Your task to perform on an android device: Look up the top rated headphones on Amazon. Image 0: 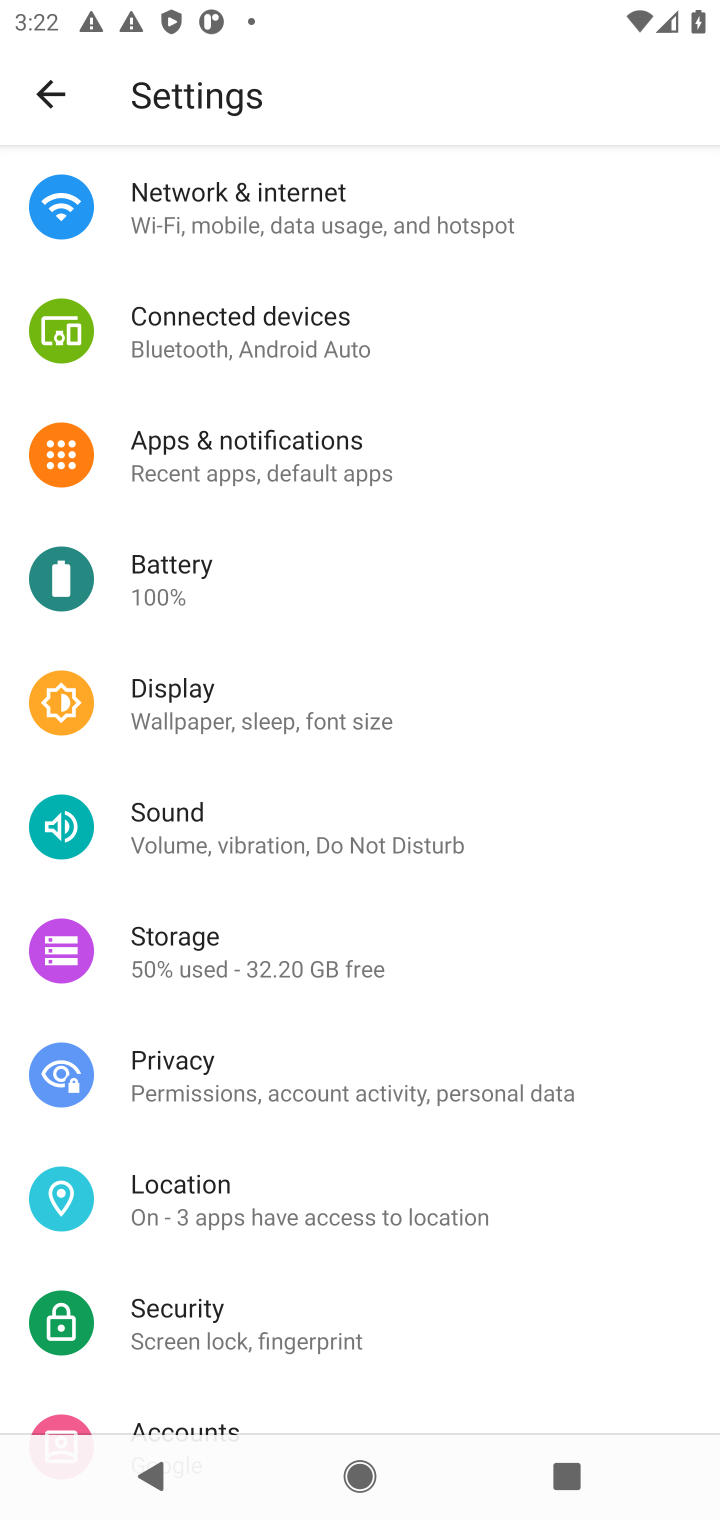
Step 0: press home button
Your task to perform on an android device: Look up the top rated headphones on Amazon. Image 1: 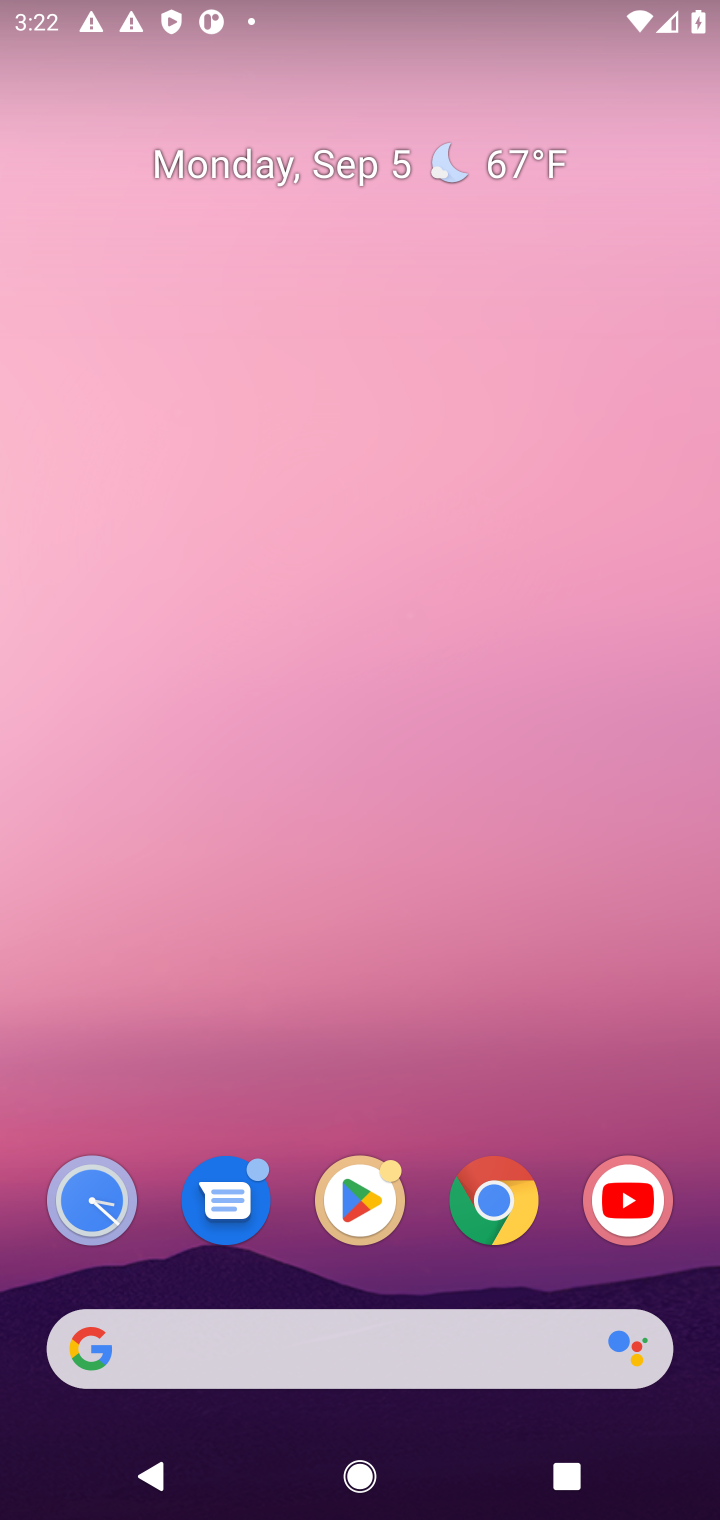
Step 1: drag from (429, 1265) to (176, 10)
Your task to perform on an android device: Look up the top rated headphones on Amazon. Image 2: 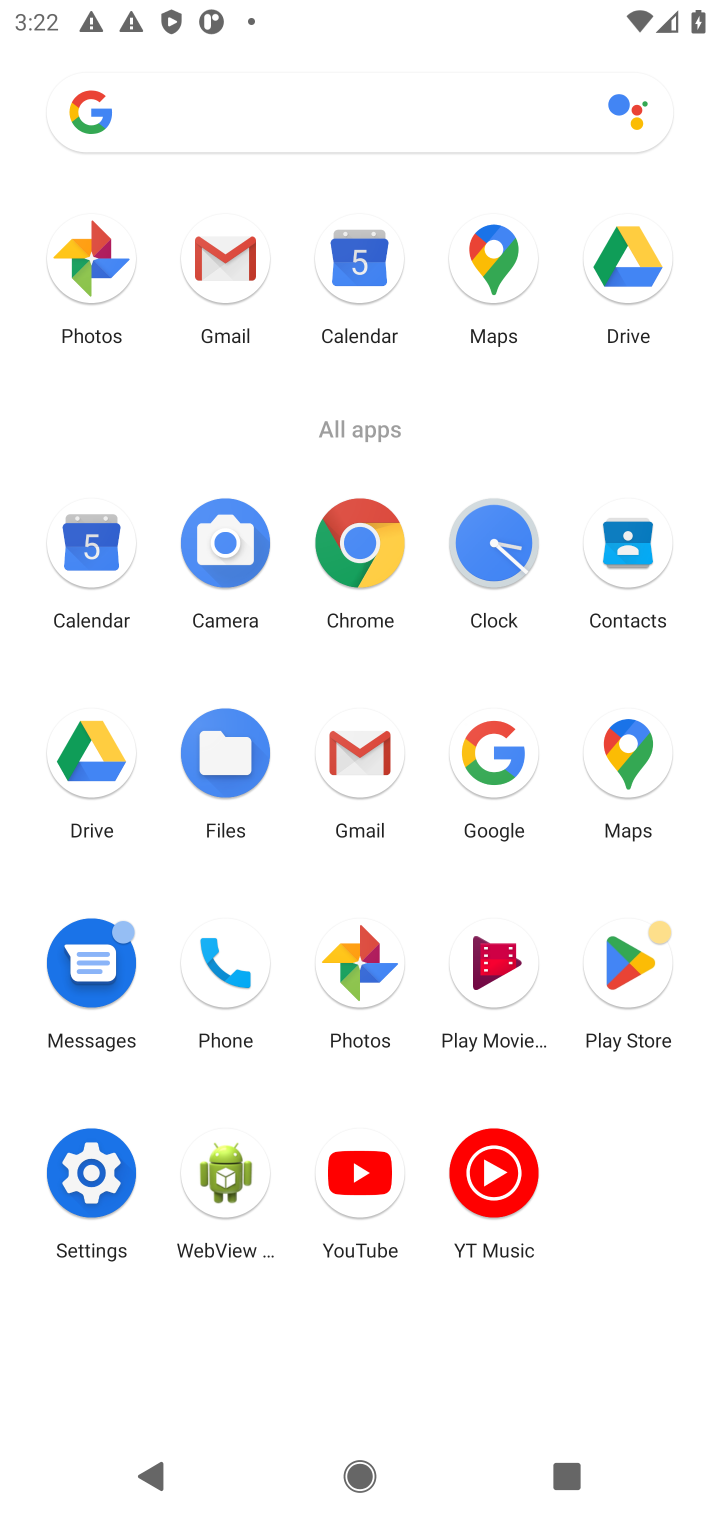
Step 2: click (486, 765)
Your task to perform on an android device: Look up the top rated headphones on Amazon. Image 3: 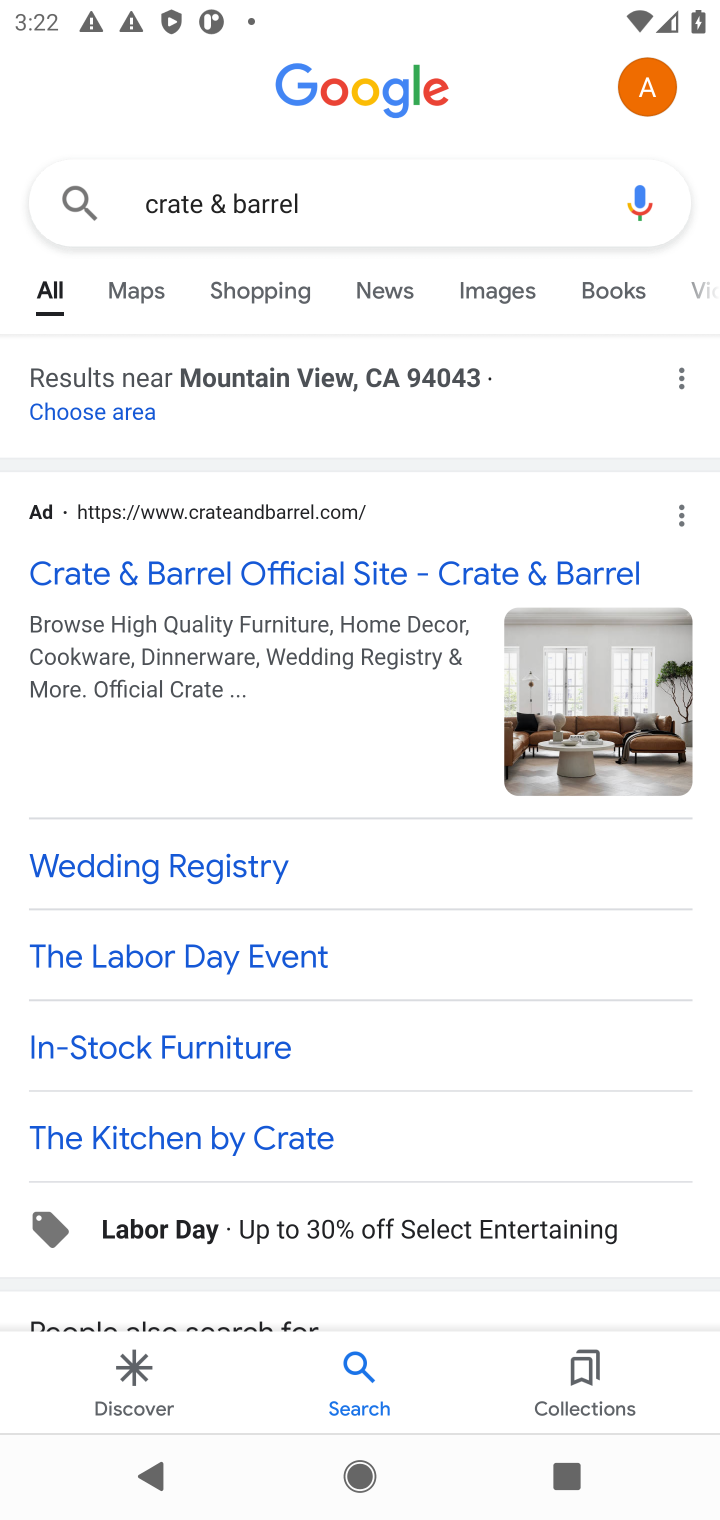
Step 3: click (317, 193)
Your task to perform on an android device: Look up the top rated headphones on Amazon. Image 4: 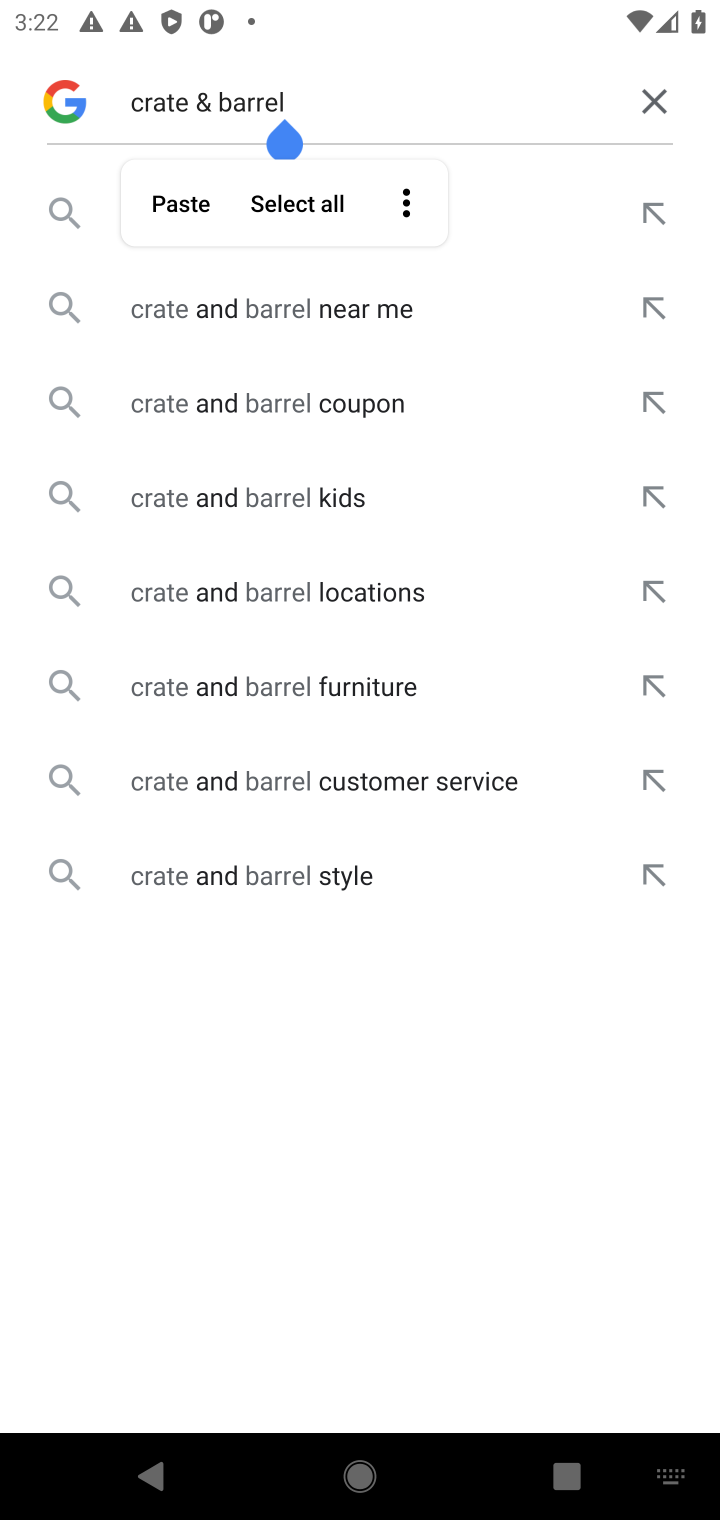
Step 4: click (648, 105)
Your task to perform on an android device: Look up the top rated headphones on Amazon. Image 5: 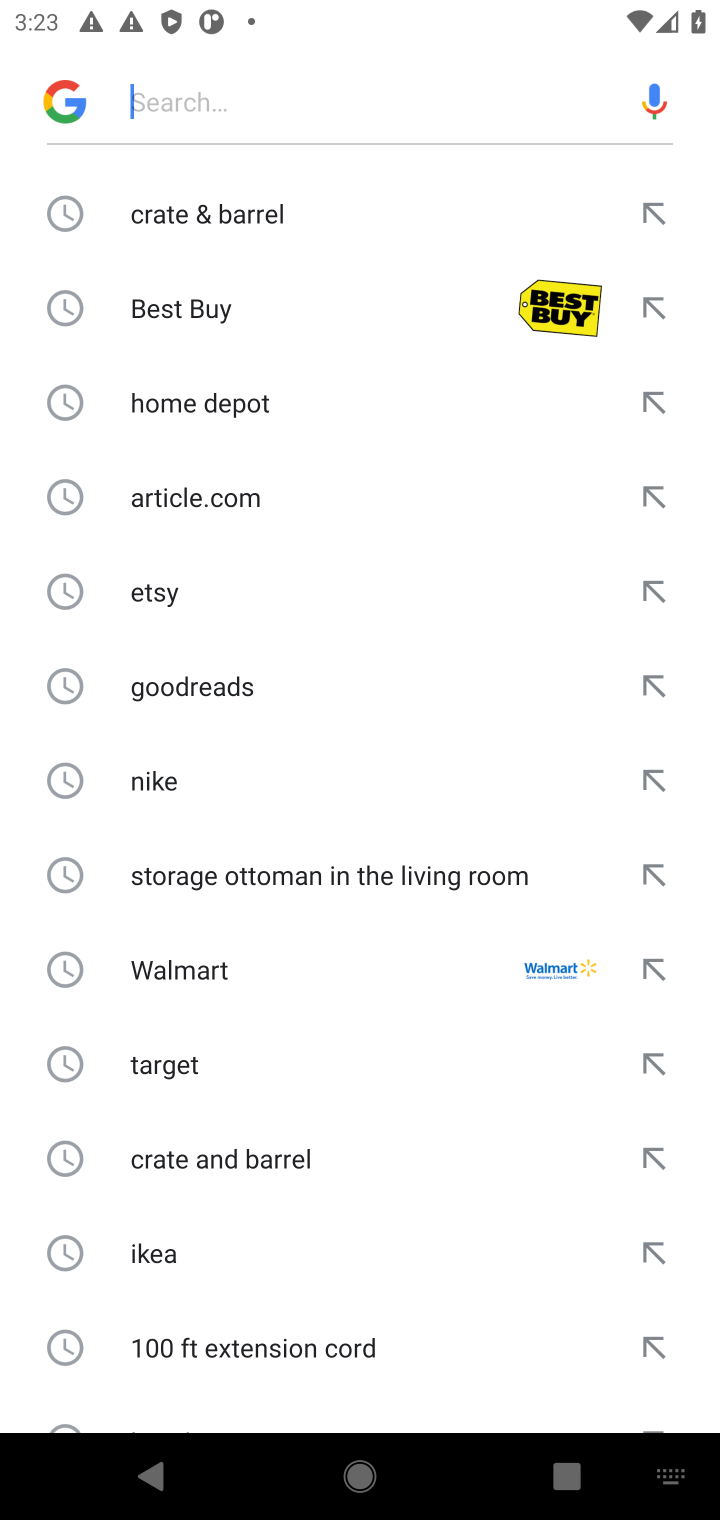
Step 5: type "amazon"
Your task to perform on an android device: Look up the top rated headphones on Amazon. Image 6: 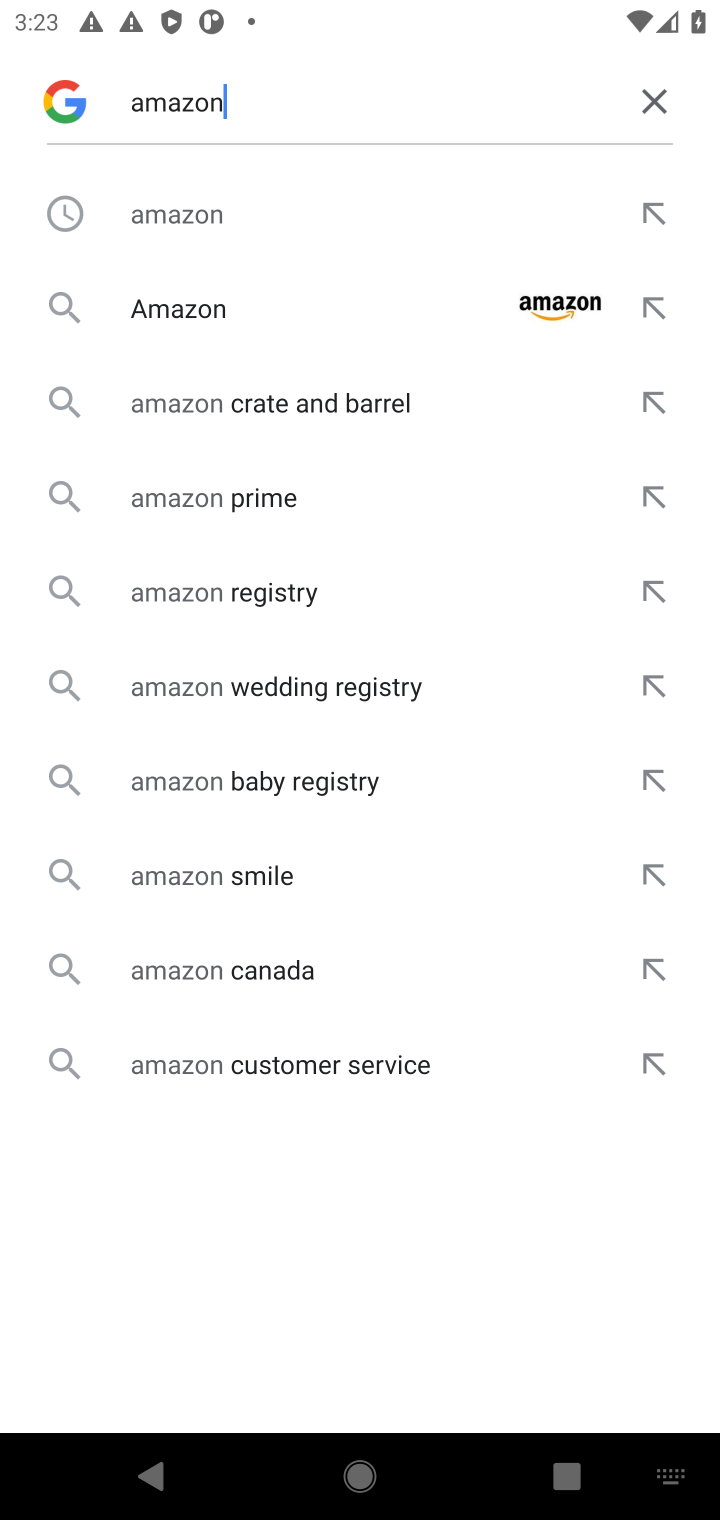
Step 6: click (161, 308)
Your task to perform on an android device: Look up the top rated headphones on Amazon. Image 7: 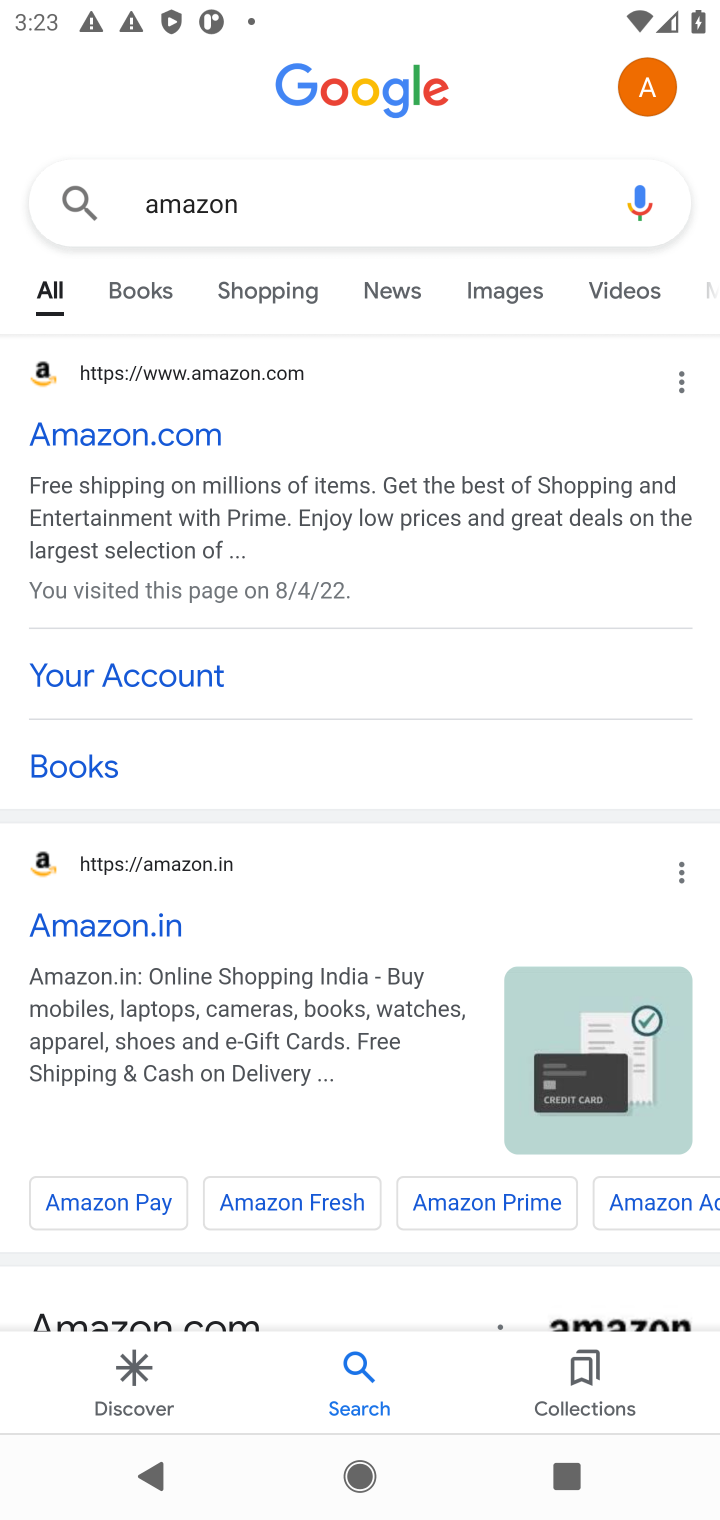
Step 7: click (106, 428)
Your task to perform on an android device: Look up the top rated headphones on Amazon. Image 8: 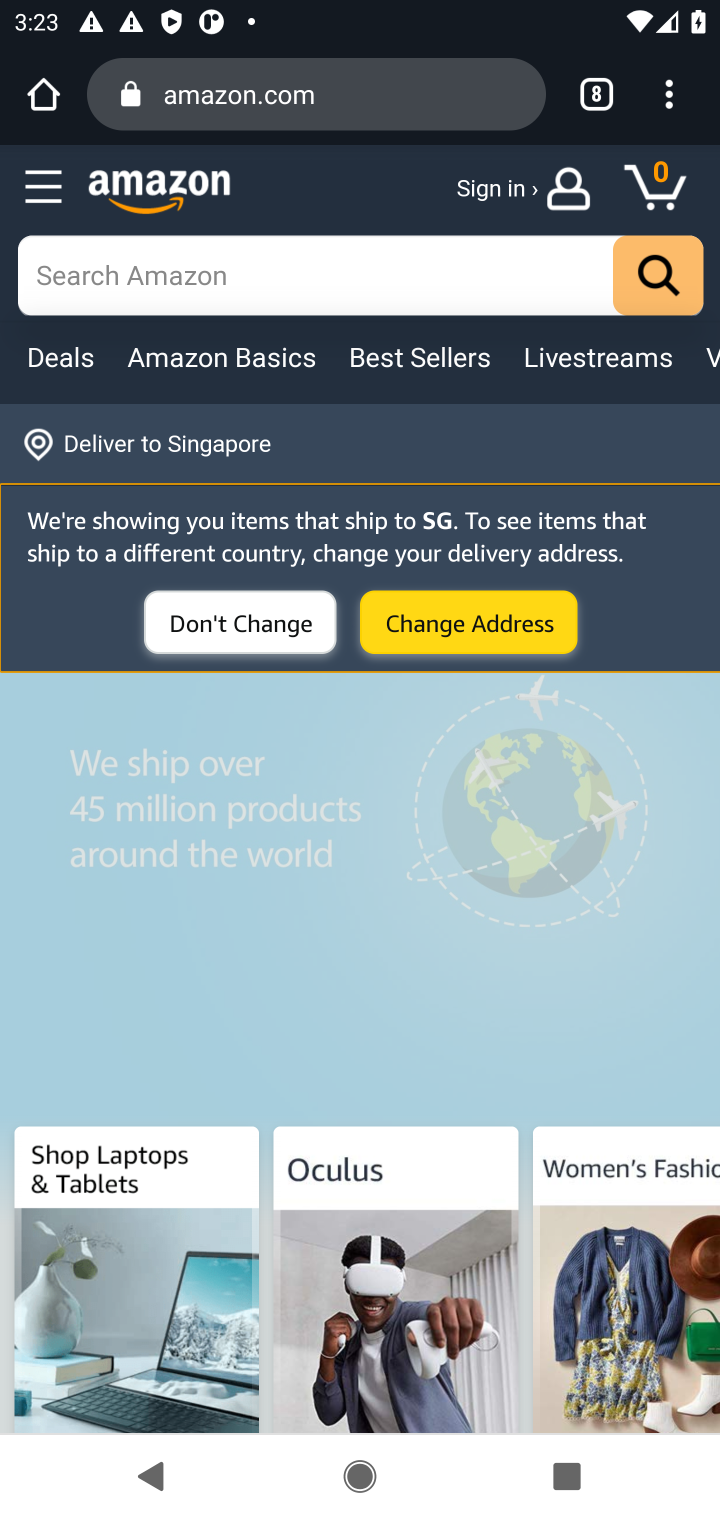
Step 8: click (301, 272)
Your task to perform on an android device: Look up the top rated headphones on Amazon. Image 9: 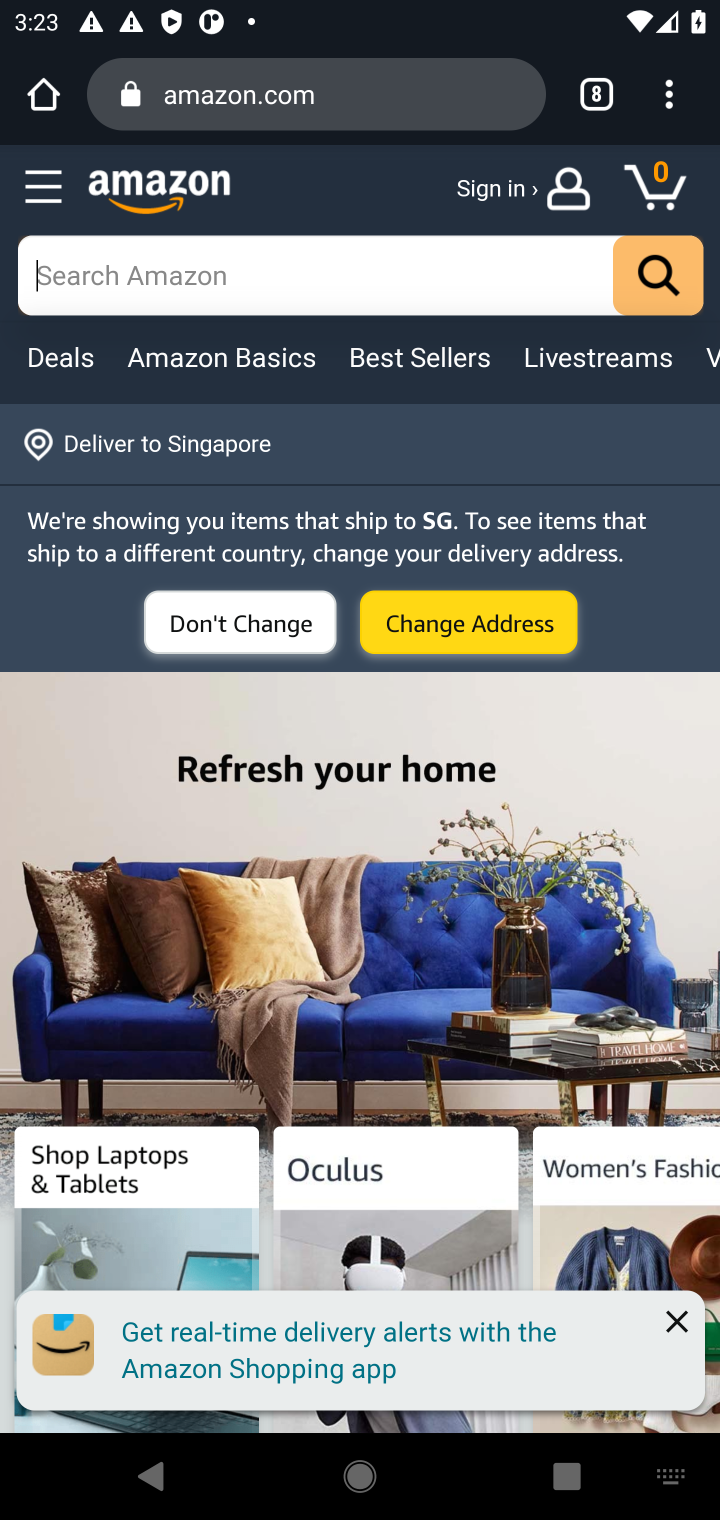
Step 9: type "top rated headphones"
Your task to perform on an android device: Look up the top rated headphones on Amazon. Image 10: 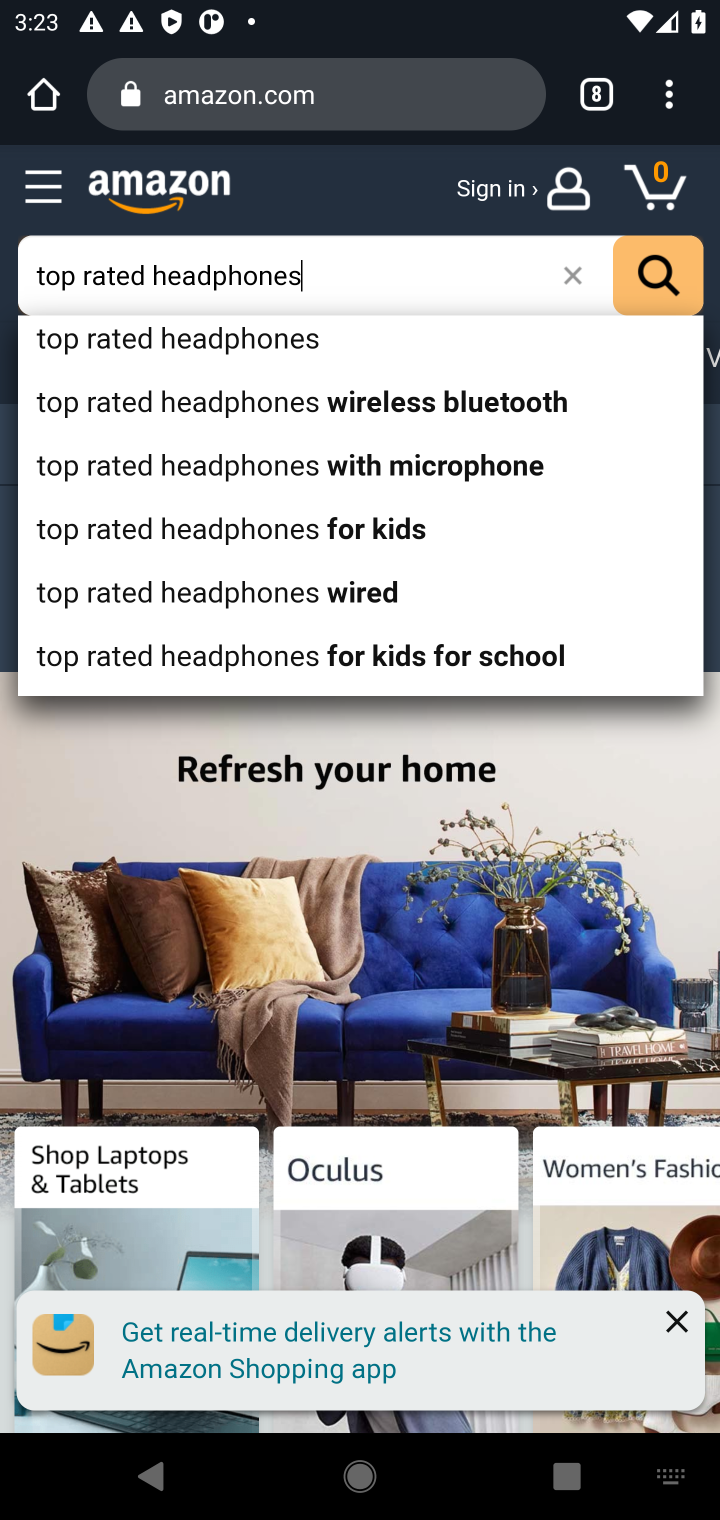
Step 10: click (663, 260)
Your task to perform on an android device: Look up the top rated headphones on Amazon. Image 11: 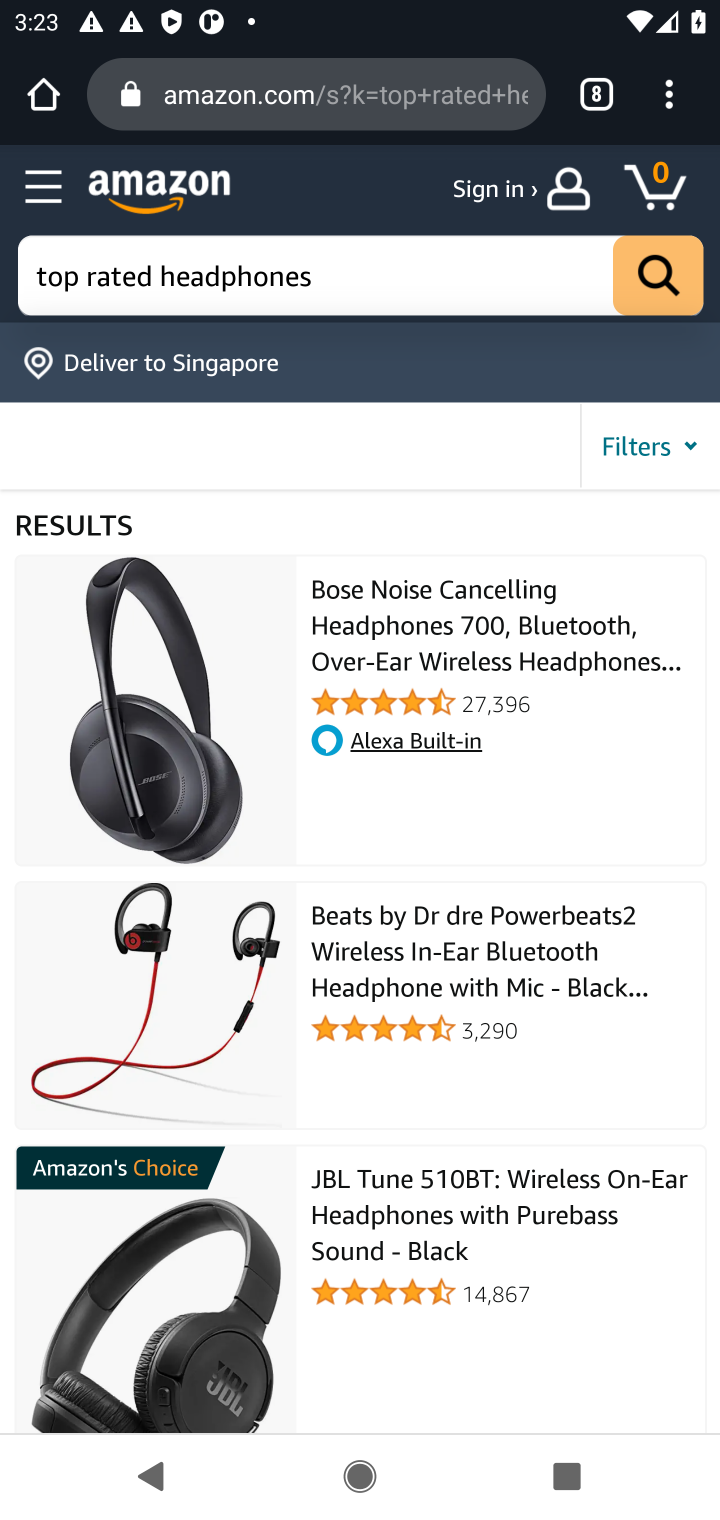
Step 11: task complete